Your task to perform on an android device: toggle wifi Image 0: 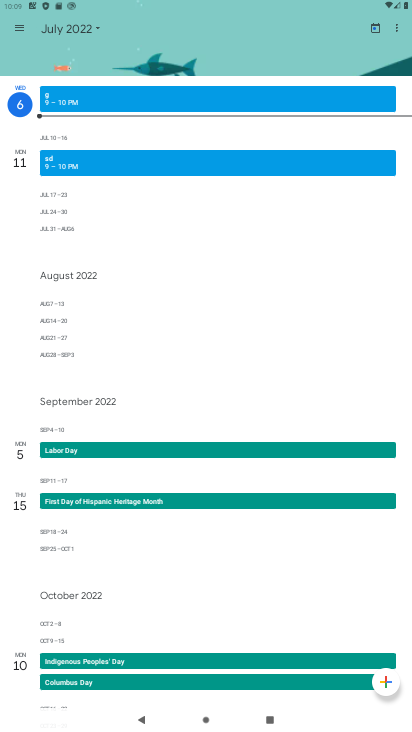
Step 0: press home button
Your task to perform on an android device: toggle wifi Image 1: 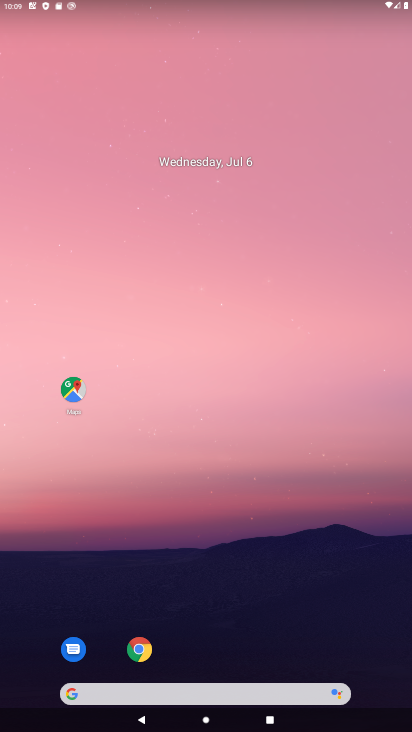
Step 1: drag from (213, 688) to (196, 172)
Your task to perform on an android device: toggle wifi Image 2: 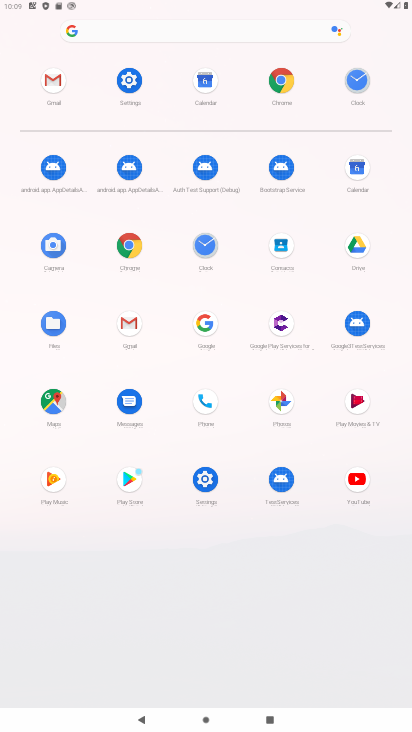
Step 2: click (115, 74)
Your task to perform on an android device: toggle wifi Image 3: 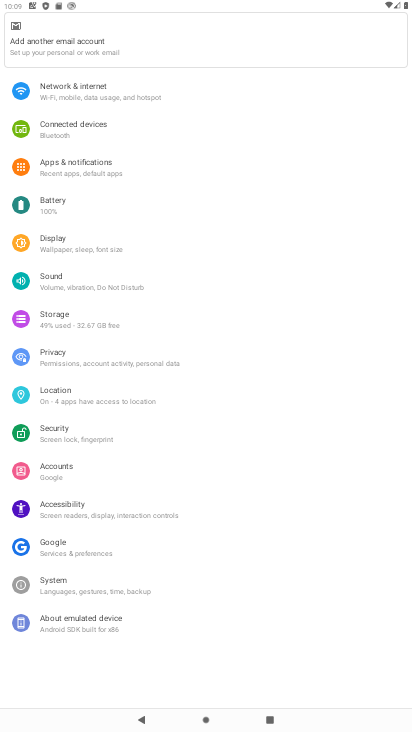
Step 3: click (123, 100)
Your task to perform on an android device: toggle wifi Image 4: 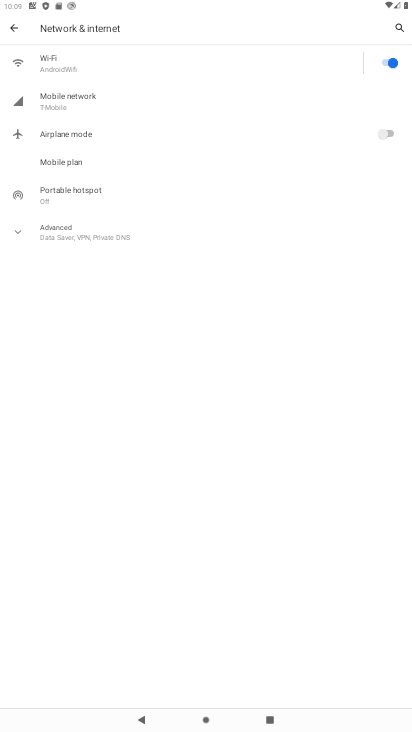
Step 4: click (387, 64)
Your task to perform on an android device: toggle wifi Image 5: 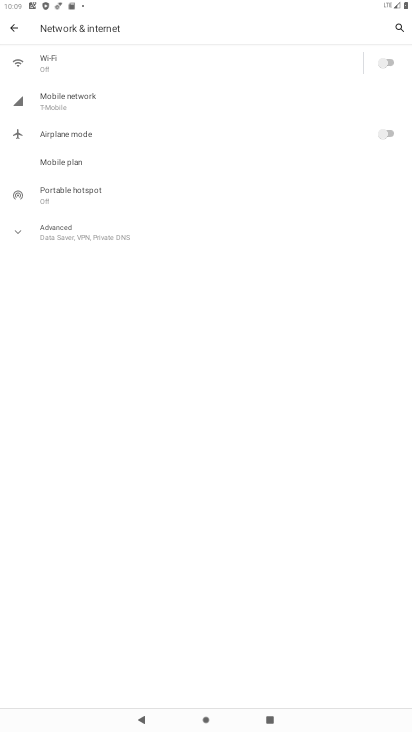
Step 5: task complete